Your task to perform on an android device: Open Yahoo.com Image 0: 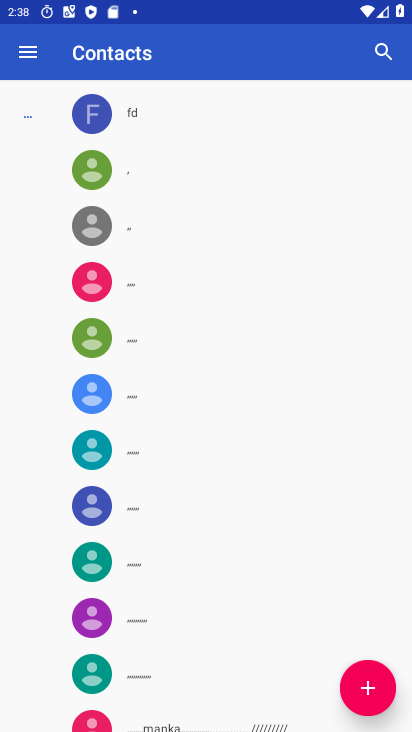
Step 0: press home button
Your task to perform on an android device: Open Yahoo.com Image 1: 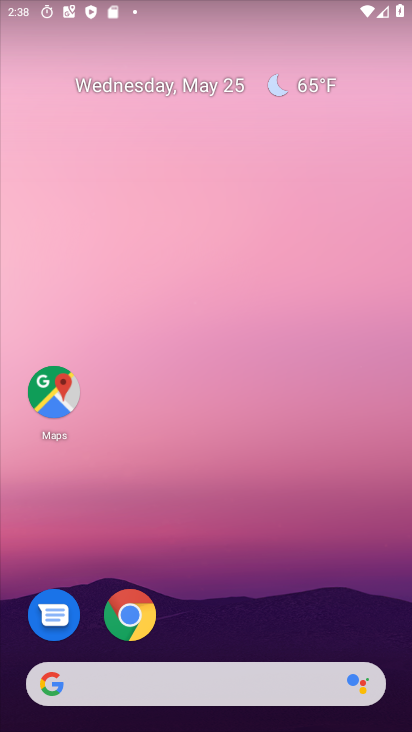
Step 1: click (122, 608)
Your task to perform on an android device: Open Yahoo.com Image 2: 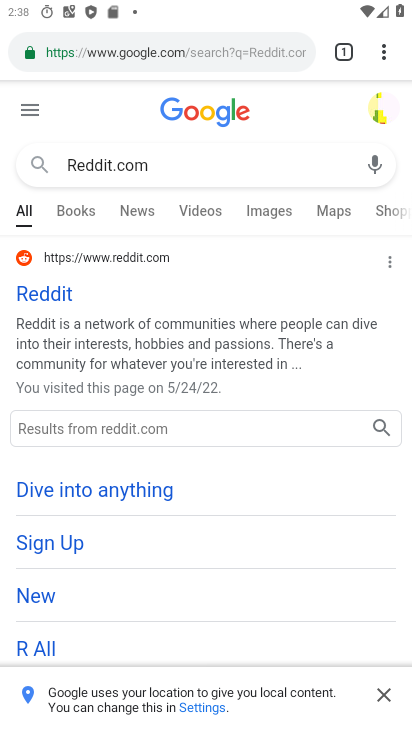
Step 2: click (306, 56)
Your task to perform on an android device: Open Yahoo.com Image 3: 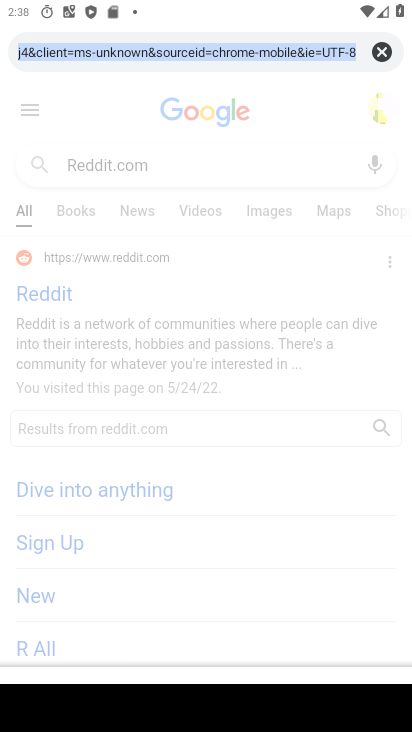
Step 3: click (379, 54)
Your task to perform on an android device: Open Yahoo.com Image 4: 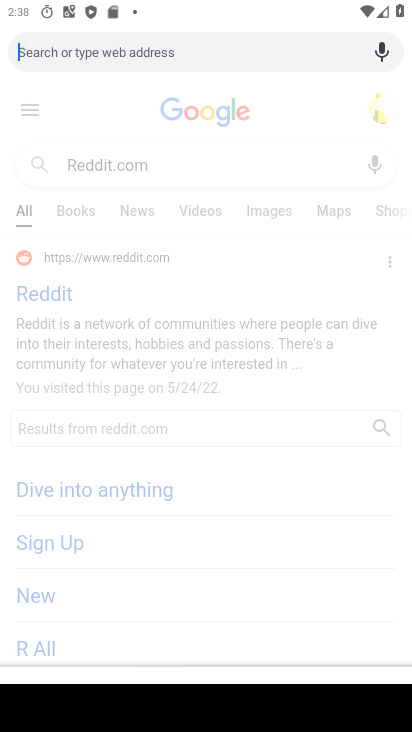
Step 4: type "Yahoo.com"
Your task to perform on an android device: Open Yahoo.com Image 5: 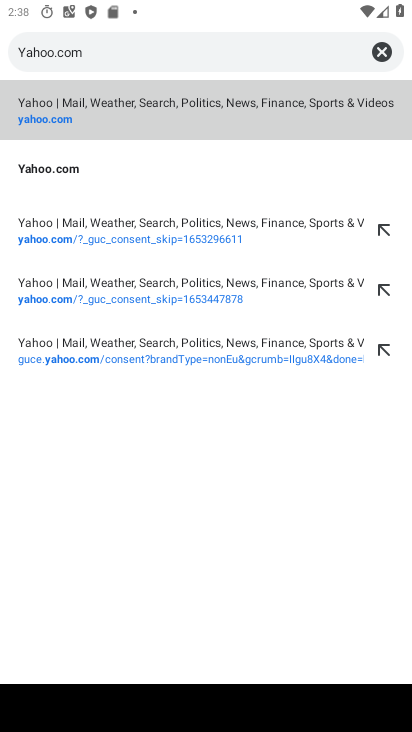
Step 5: click (43, 171)
Your task to perform on an android device: Open Yahoo.com Image 6: 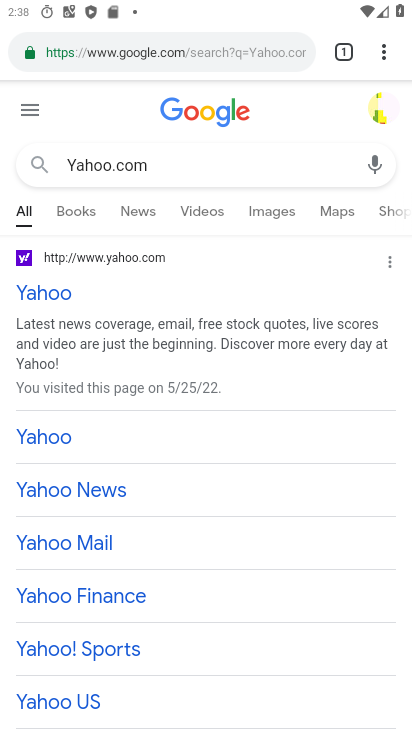
Step 6: task complete